Your task to perform on an android device: Open display settings Image 0: 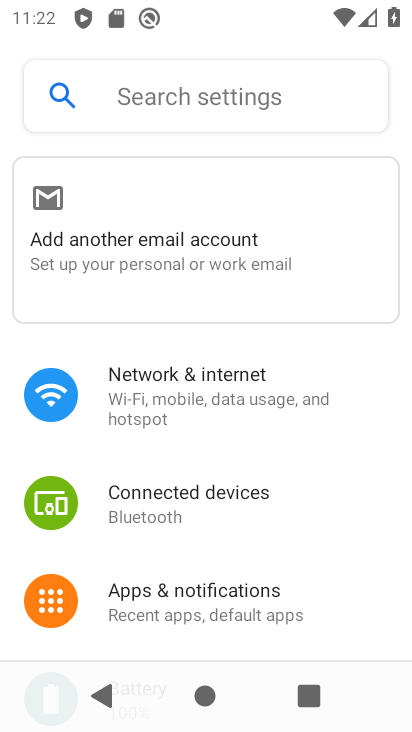
Step 0: drag from (276, 540) to (251, 326)
Your task to perform on an android device: Open display settings Image 1: 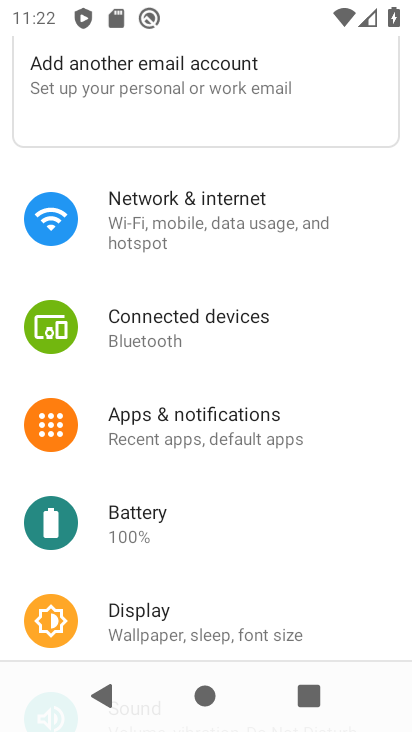
Step 1: drag from (206, 498) to (197, 268)
Your task to perform on an android device: Open display settings Image 2: 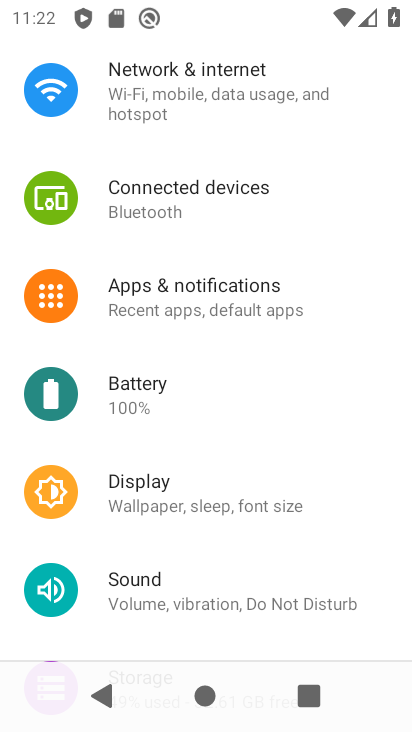
Step 2: click (123, 478)
Your task to perform on an android device: Open display settings Image 3: 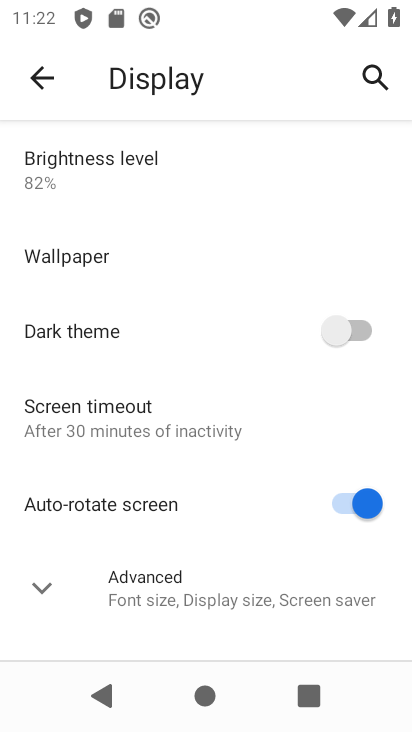
Step 3: task complete